Your task to perform on an android device: Set the phone to "Do not disturb". Image 0: 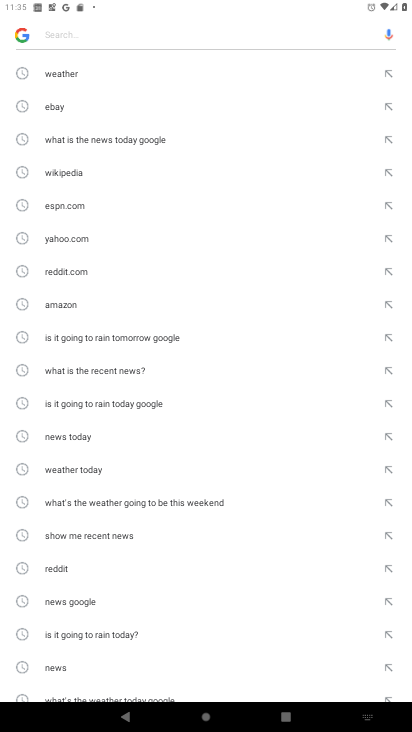
Step 0: press home button
Your task to perform on an android device: Set the phone to "Do not disturb". Image 1: 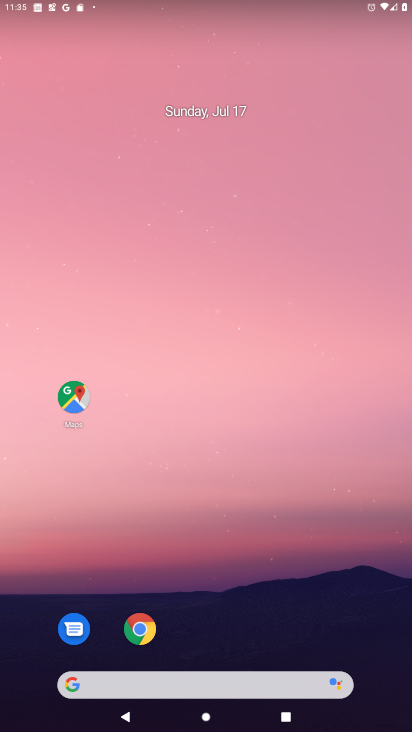
Step 1: drag from (186, 682) to (279, 236)
Your task to perform on an android device: Set the phone to "Do not disturb". Image 2: 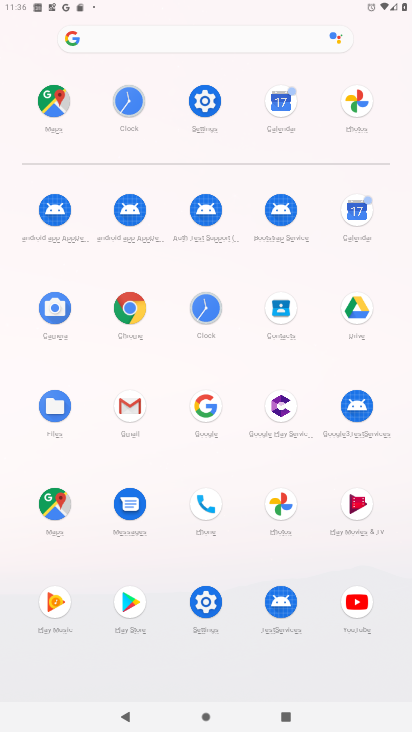
Step 2: click (204, 100)
Your task to perform on an android device: Set the phone to "Do not disturb". Image 3: 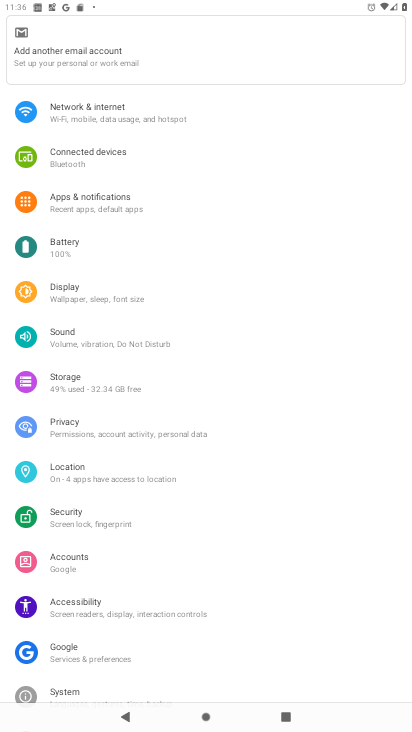
Step 3: click (114, 349)
Your task to perform on an android device: Set the phone to "Do not disturb". Image 4: 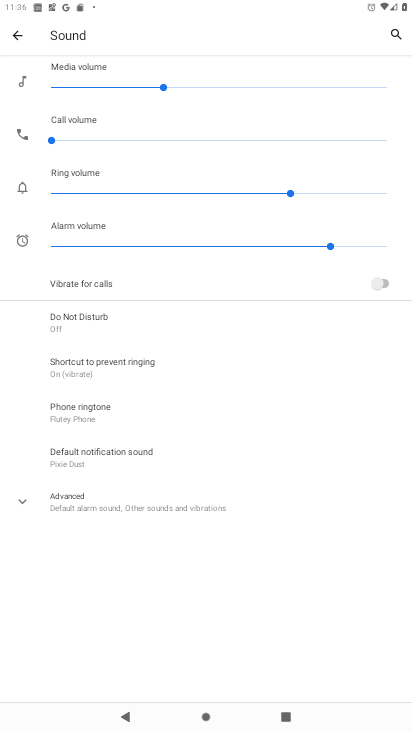
Step 4: click (97, 322)
Your task to perform on an android device: Set the phone to "Do not disturb". Image 5: 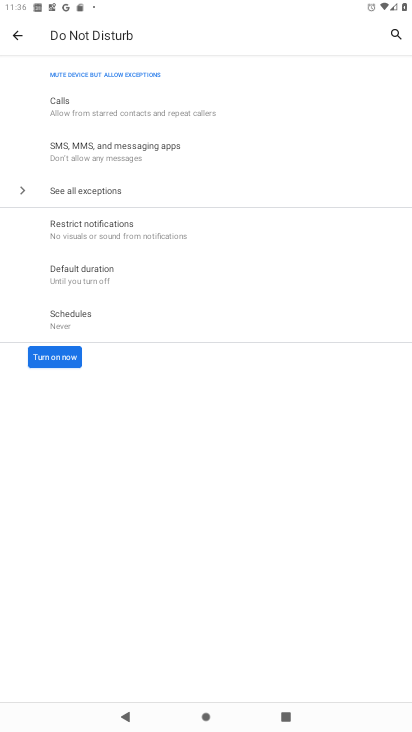
Step 5: click (58, 358)
Your task to perform on an android device: Set the phone to "Do not disturb". Image 6: 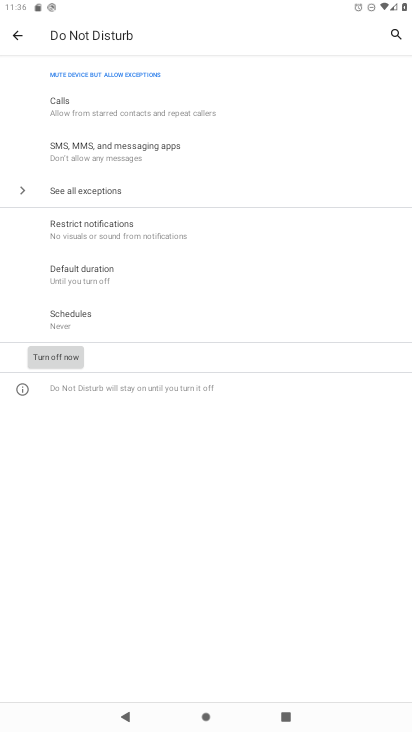
Step 6: task complete